Your task to perform on an android device: Show me popular games on the Play Store Image 0: 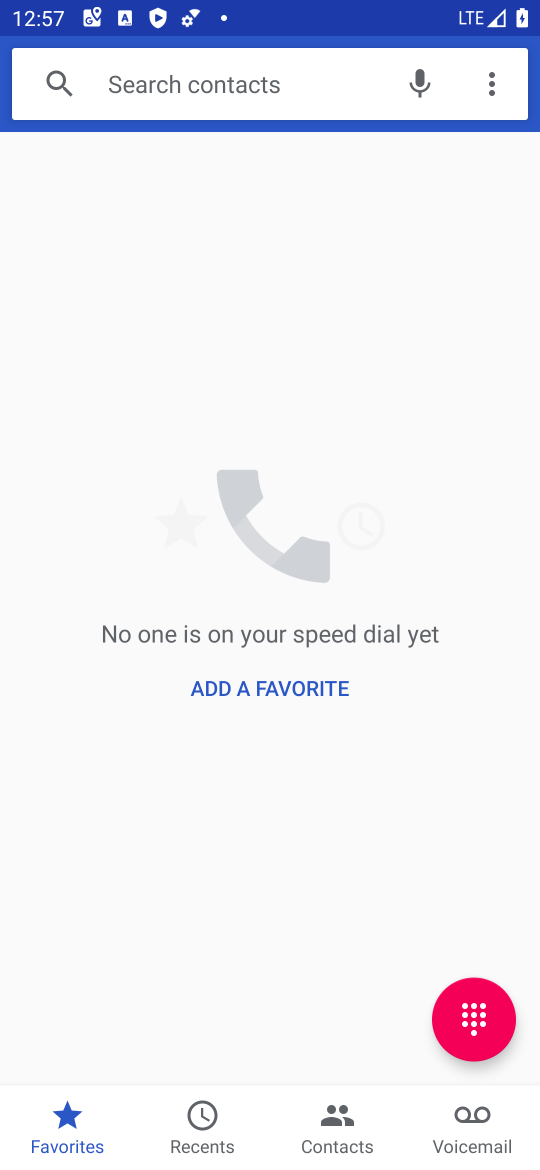
Step 0: press home button
Your task to perform on an android device: Show me popular games on the Play Store Image 1: 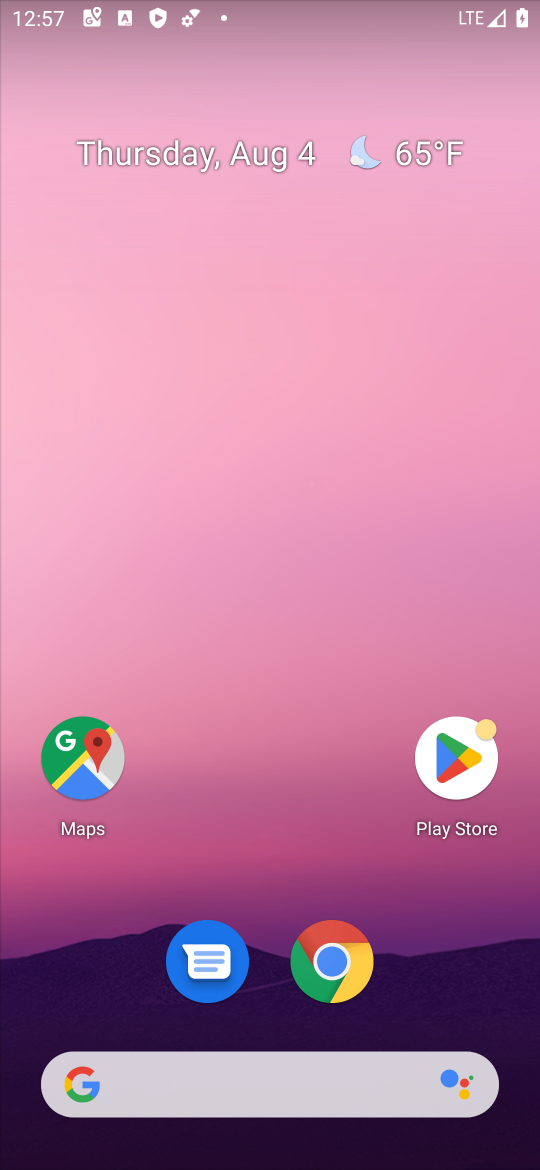
Step 1: click (451, 728)
Your task to perform on an android device: Show me popular games on the Play Store Image 2: 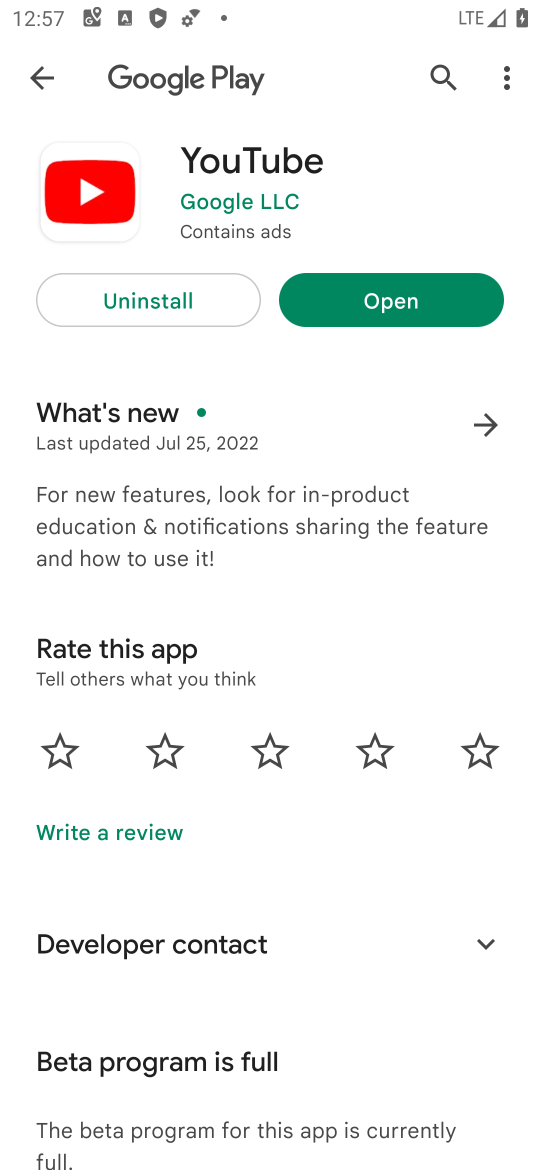
Step 2: click (29, 88)
Your task to perform on an android device: Show me popular games on the Play Store Image 3: 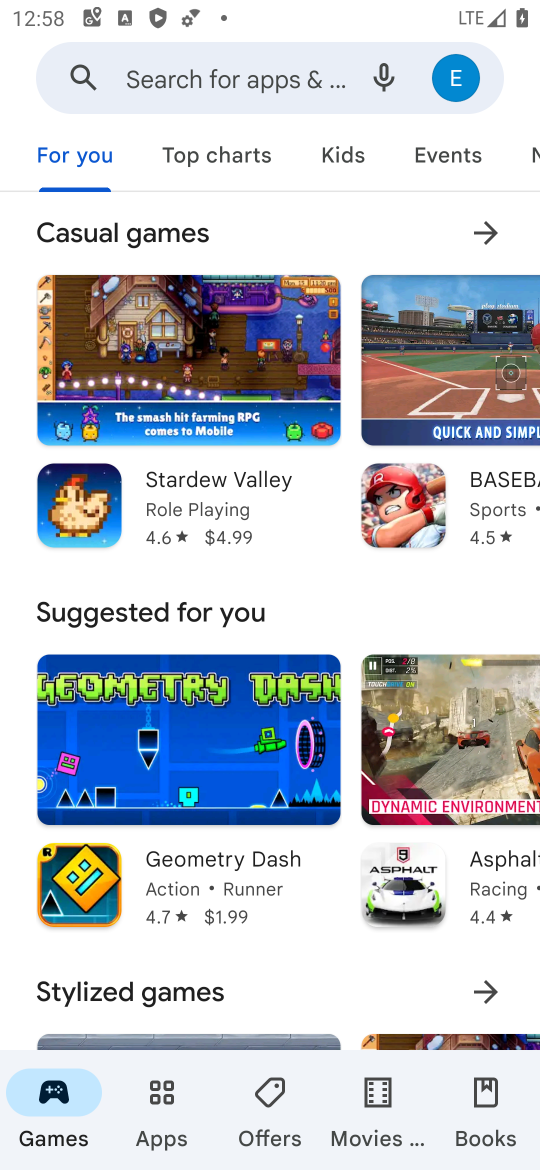
Step 3: task complete